Your task to perform on an android device: toggle data saver in the chrome app Image 0: 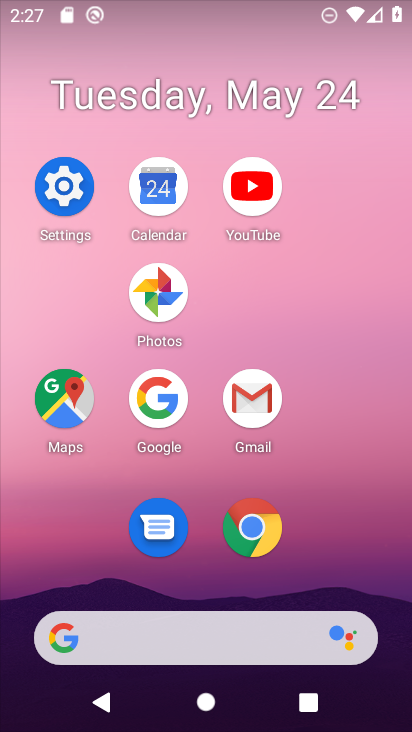
Step 0: click (262, 543)
Your task to perform on an android device: toggle data saver in the chrome app Image 1: 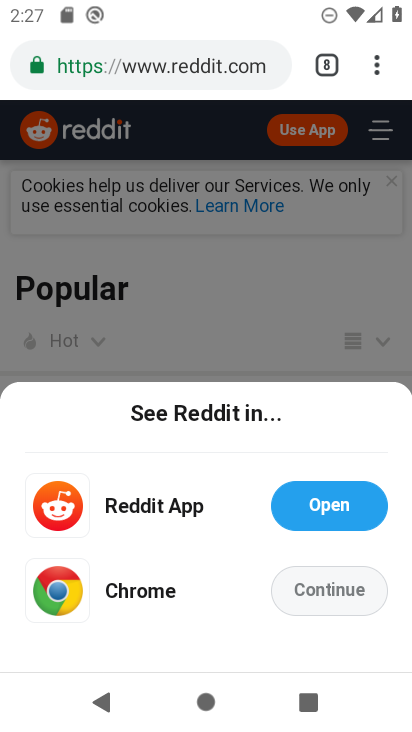
Step 1: click (367, 79)
Your task to perform on an android device: toggle data saver in the chrome app Image 2: 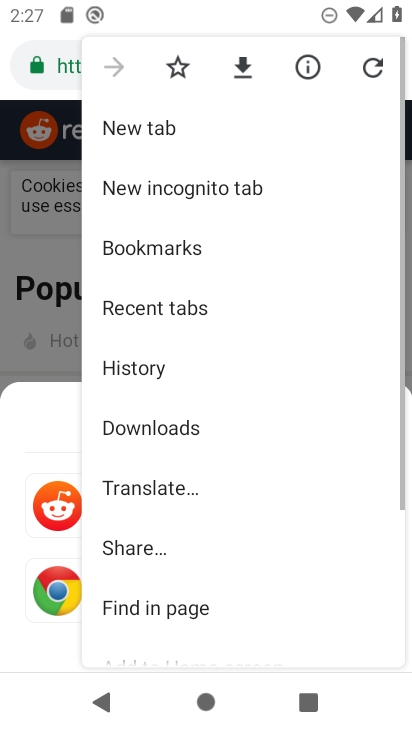
Step 2: drag from (238, 502) to (264, 204)
Your task to perform on an android device: toggle data saver in the chrome app Image 3: 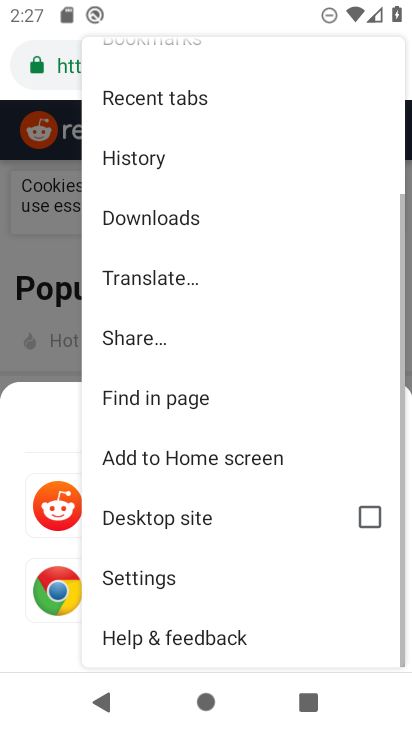
Step 3: click (236, 569)
Your task to perform on an android device: toggle data saver in the chrome app Image 4: 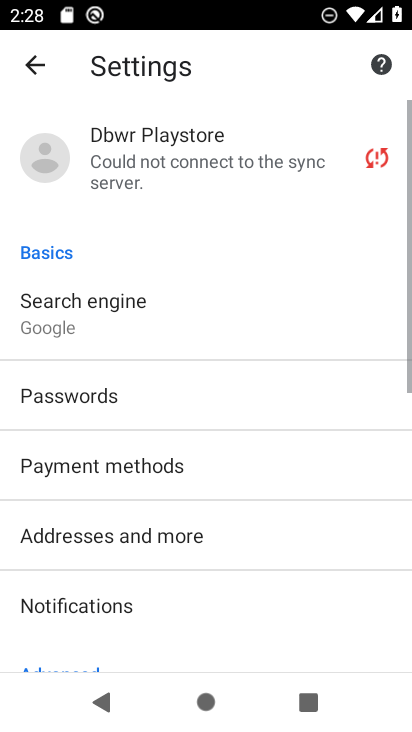
Step 4: drag from (225, 566) to (166, 241)
Your task to perform on an android device: toggle data saver in the chrome app Image 5: 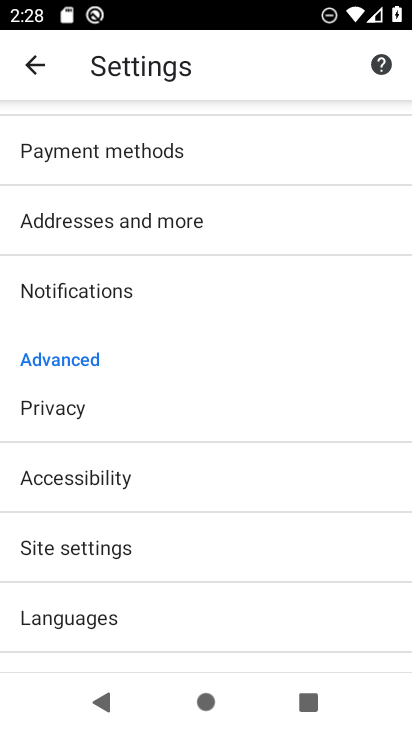
Step 5: drag from (213, 576) to (182, 262)
Your task to perform on an android device: toggle data saver in the chrome app Image 6: 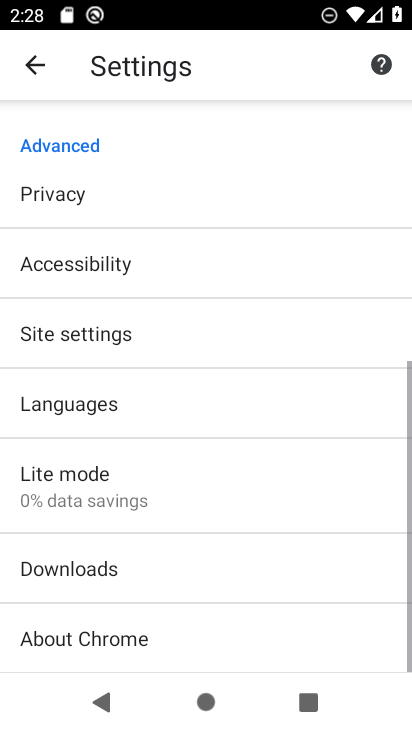
Step 6: click (218, 484)
Your task to perform on an android device: toggle data saver in the chrome app Image 7: 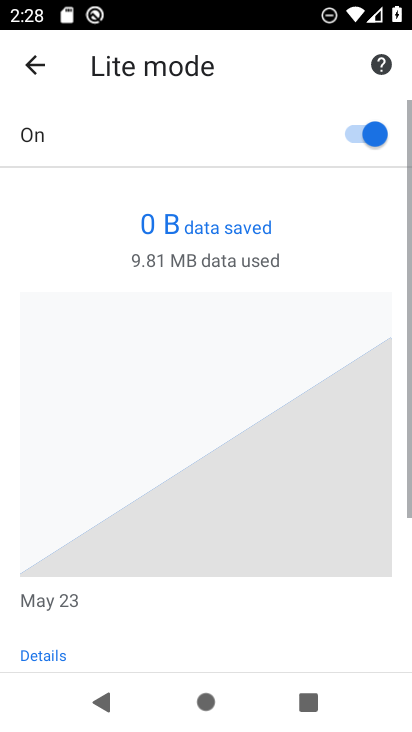
Step 7: click (365, 150)
Your task to perform on an android device: toggle data saver in the chrome app Image 8: 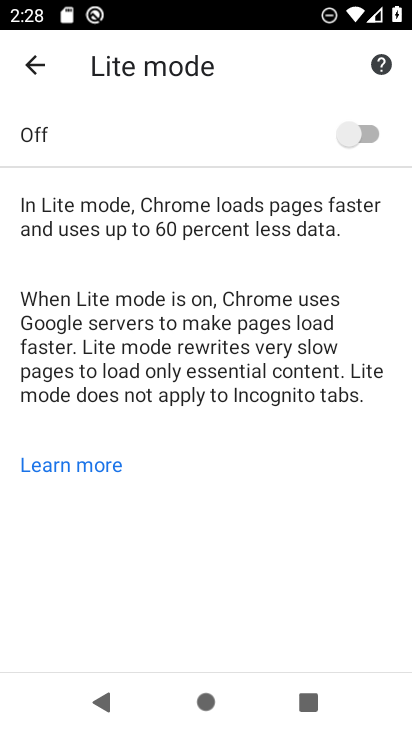
Step 8: task complete